Your task to perform on an android device: Open the stopwatch Image 0: 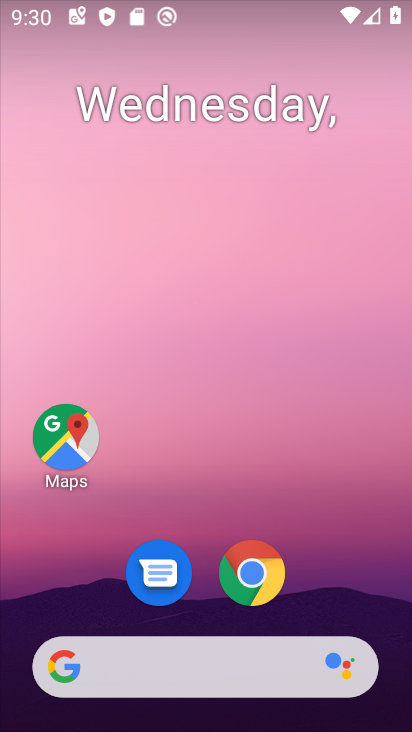
Step 0: drag from (378, 582) to (385, 246)
Your task to perform on an android device: Open the stopwatch Image 1: 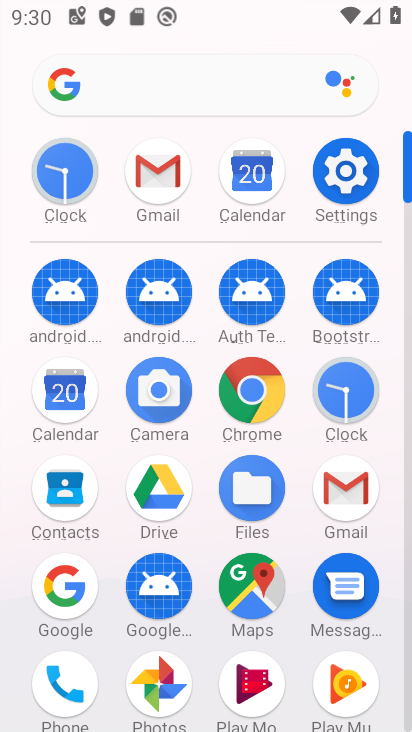
Step 1: click (354, 381)
Your task to perform on an android device: Open the stopwatch Image 2: 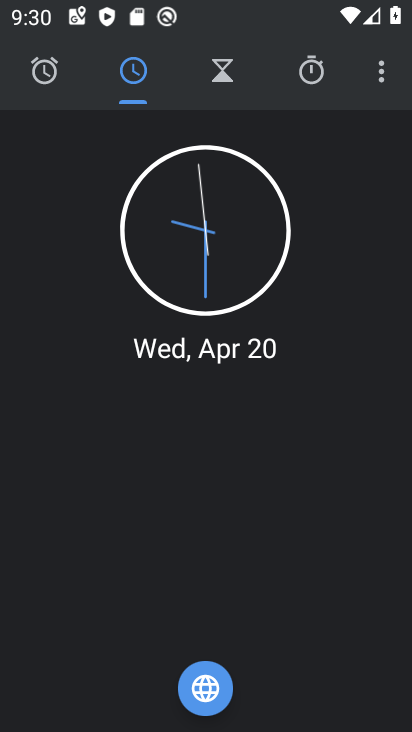
Step 2: click (315, 69)
Your task to perform on an android device: Open the stopwatch Image 3: 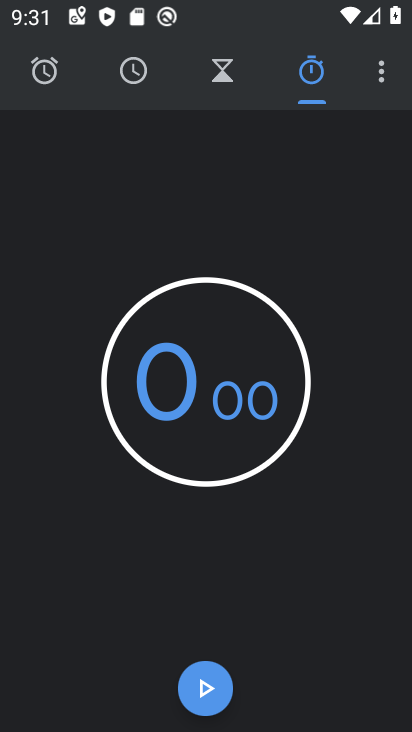
Step 3: task complete